Your task to perform on an android device: Open settings on Google Maps Image 0: 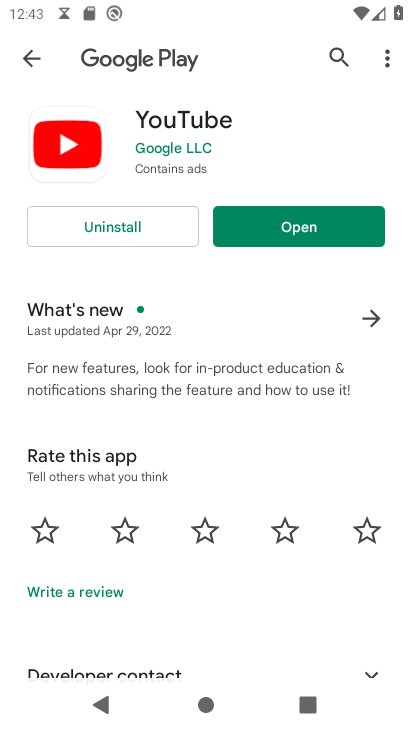
Step 0: press home button
Your task to perform on an android device: Open settings on Google Maps Image 1: 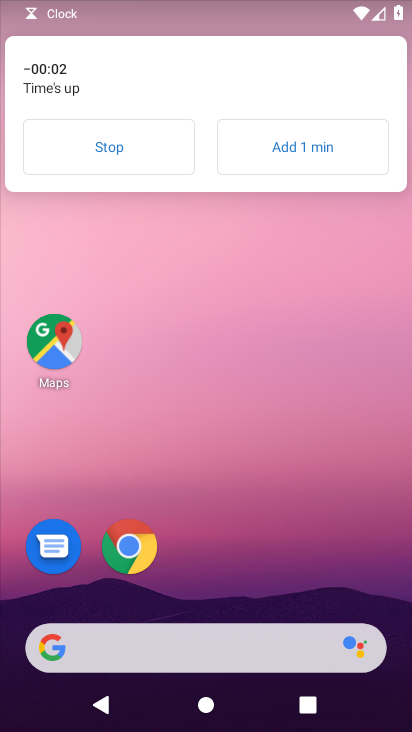
Step 1: click (62, 330)
Your task to perform on an android device: Open settings on Google Maps Image 2: 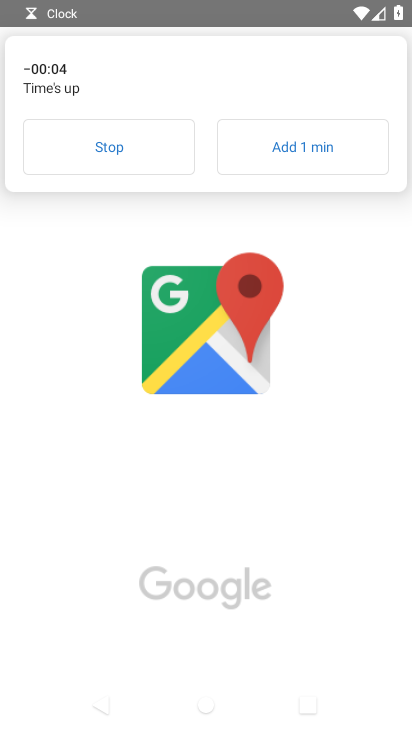
Step 2: click (81, 144)
Your task to perform on an android device: Open settings on Google Maps Image 3: 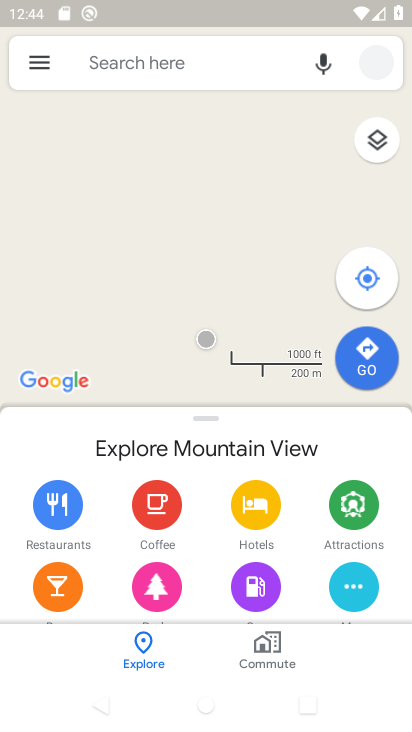
Step 3: click (32, 64)
Your task to perform on an android device: Open settings on Google Maps Image 4: 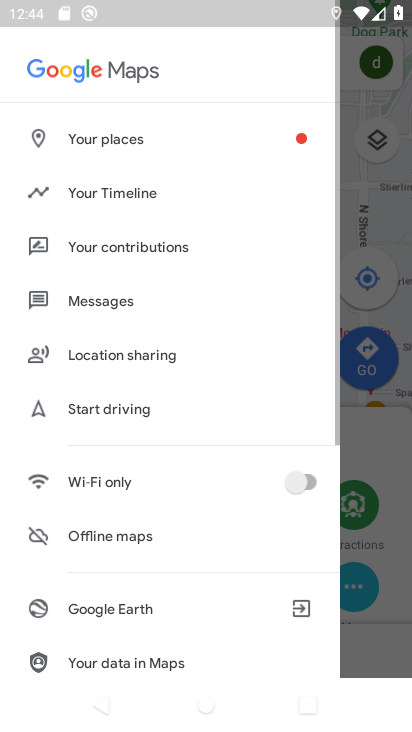
Step 4: click (114, 191)
Your task to perform on an android device: Open settings on Google Maps Image 5: 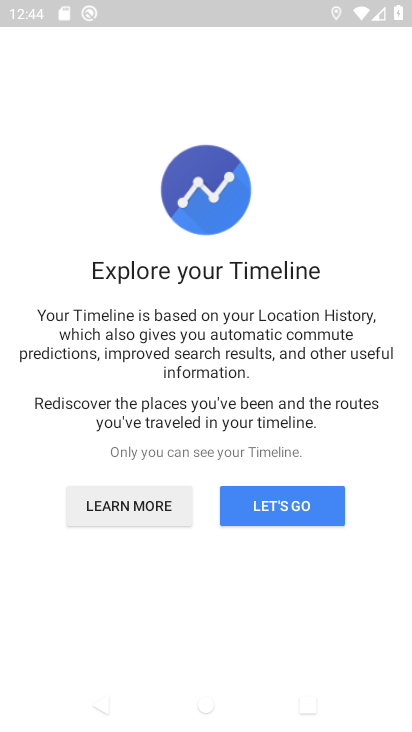
Step 5: click (250, 513)
Your task to perform on an android device: Open settings on Google Maps Image 6: 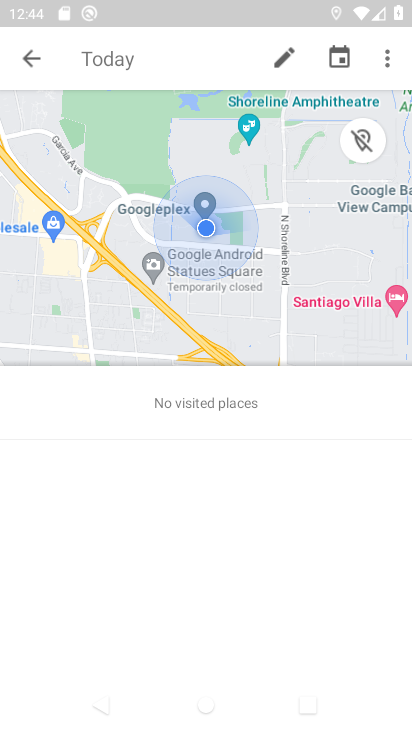
Step 6: click (389, 52)
Your task to perform on an android device: Open settings on Google Maps Image 7: 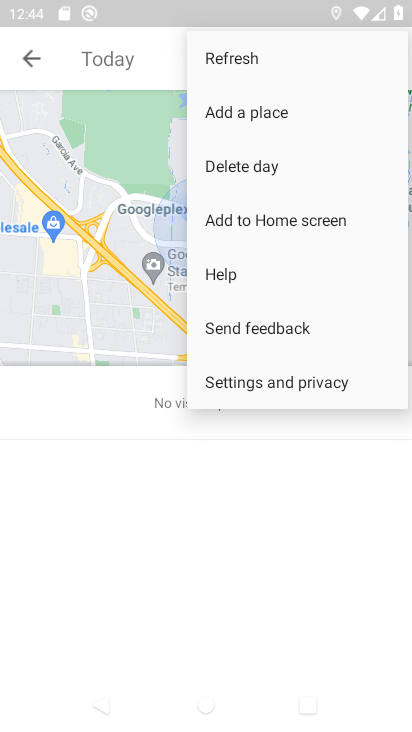
Step 7: click (263, 380)
Your task to perform on an android device: Open settings on Google Maps Image 8: 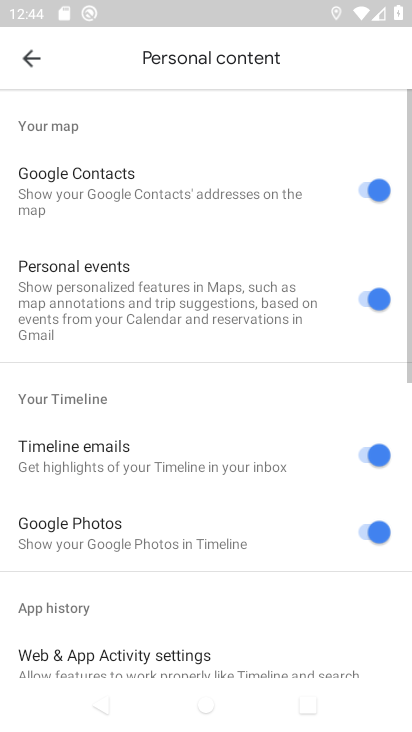
Step 8: task complete